Your task to perform on an android device: open app "Truecaller" (install if not already installed) Image 0: 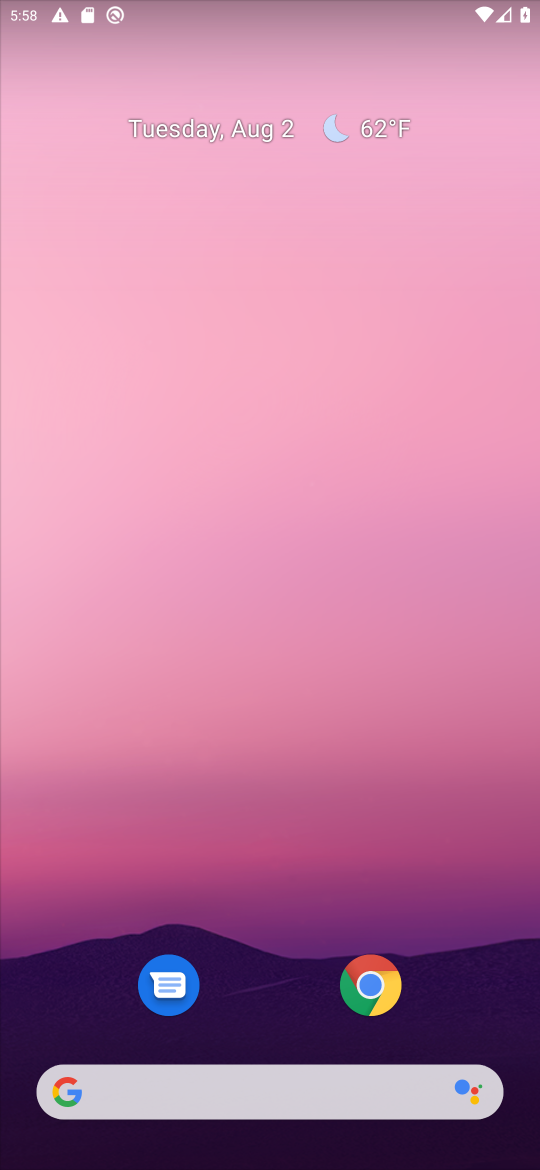
Step 0: press home button
Your task to perform on an android device: open app "Truecaller" (install if not already installed) Image 1: 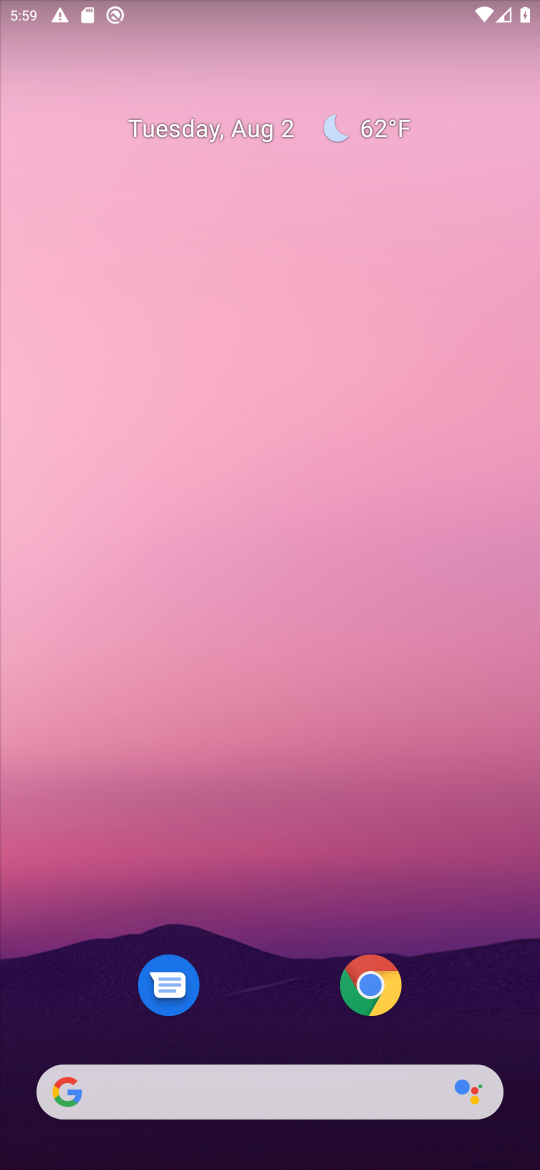
Step 1: drag from (264, 959) to (251, 391)
Your task to perform on an android device: open app "Truecaller" (install if not already installed) Image 2: 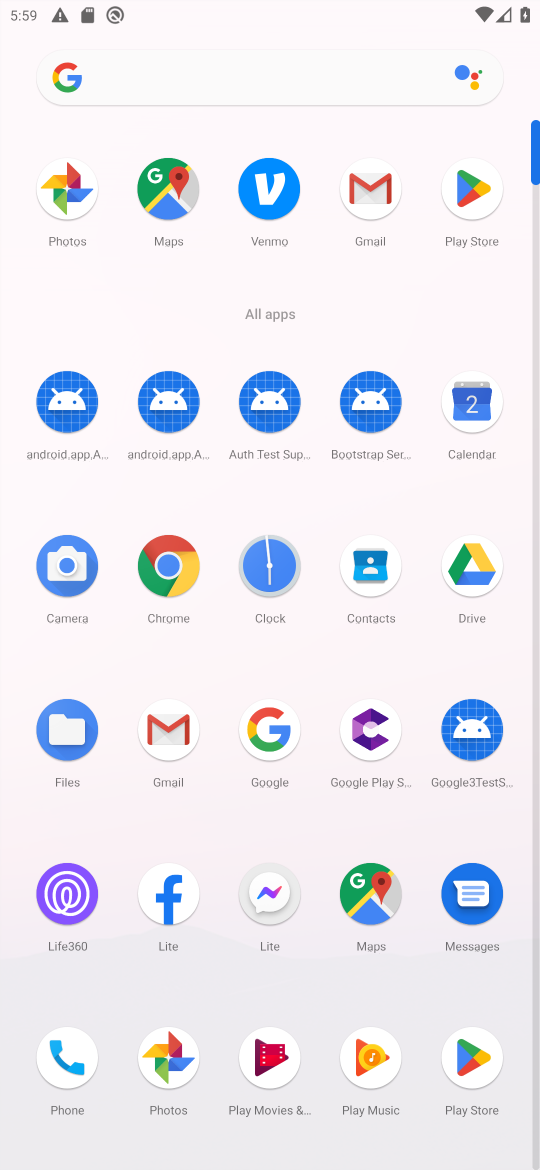
Step 2: click (462, 188)
Your task to perform on an android device: open app "Truecaller" (install if not already installed) Image 3: 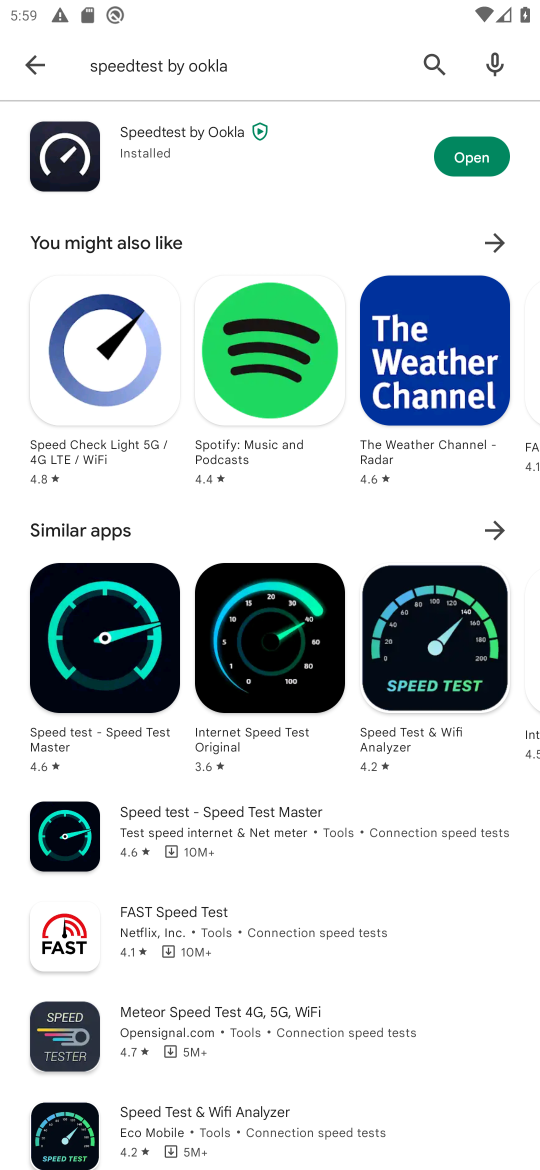
Step 3: click (425, 46)
Your task to perform on an android device: open app "Truecaller" (install if not already installed) Image 4: 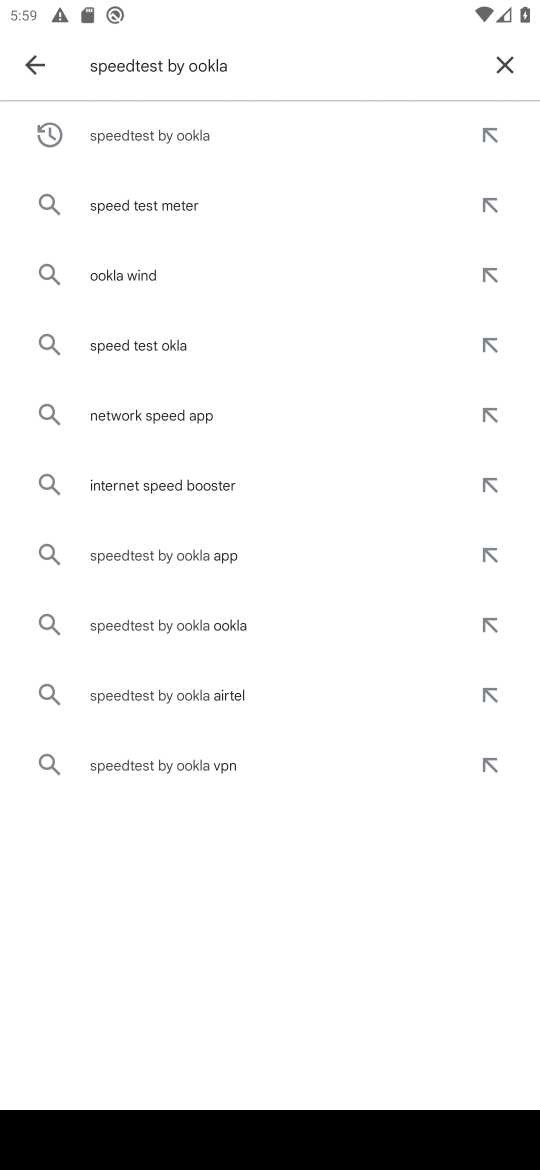
Step 4: click (499, 62)
Your task to perform on an android device: open app "Truecaller" (install if not already installed) Image 5: 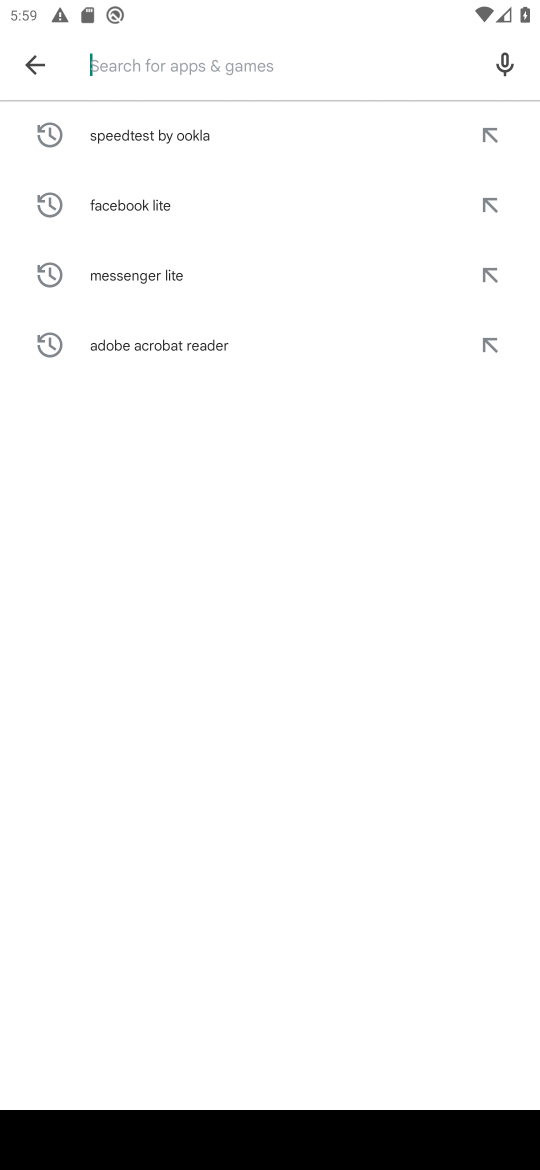
Step 5: type "Truecaller"
Your task to perform on an android device: open app "Truecaller" (install if not already installed) Image 6: 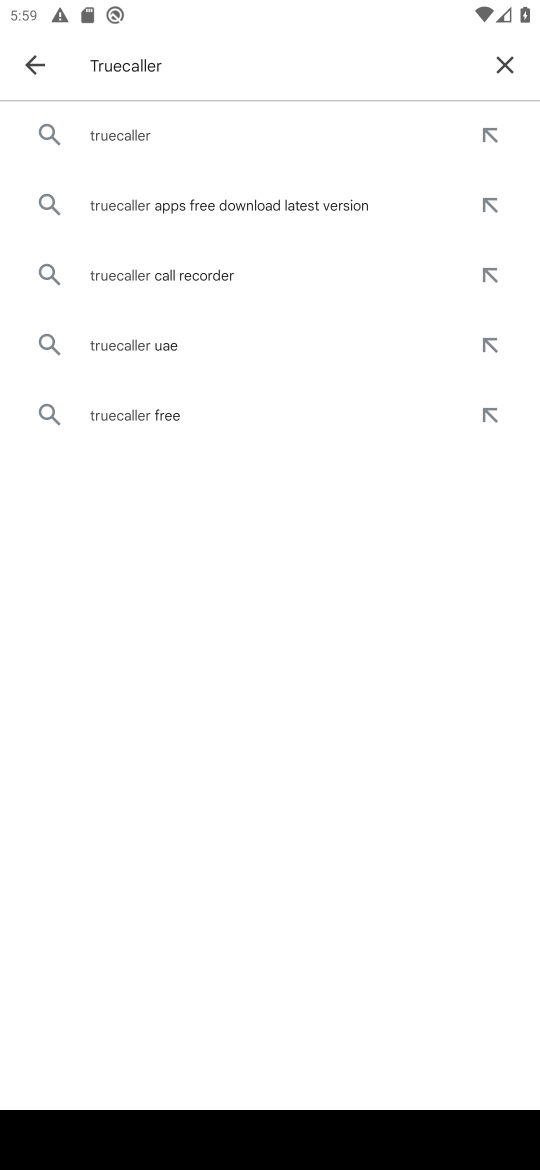
Step 6: click (182, 121)
Your task to perform on an android device: open app "Truecaller" (install if not already installed) Image 7: 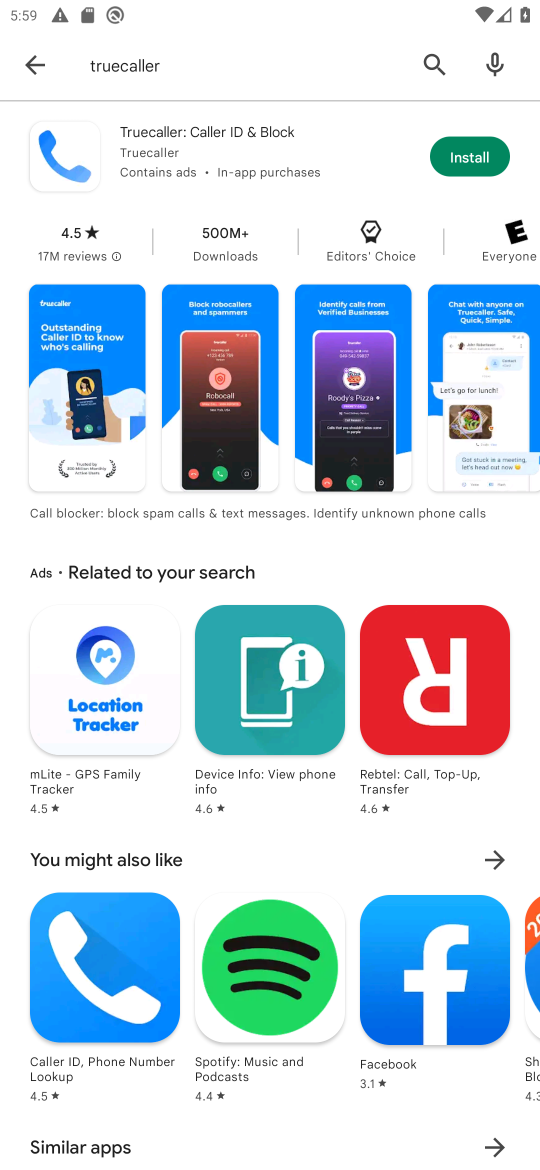
Step 7: click (455, 163)
Your task to perform on an android device: open app "Truecaller" (install if not already installed) Image 8: 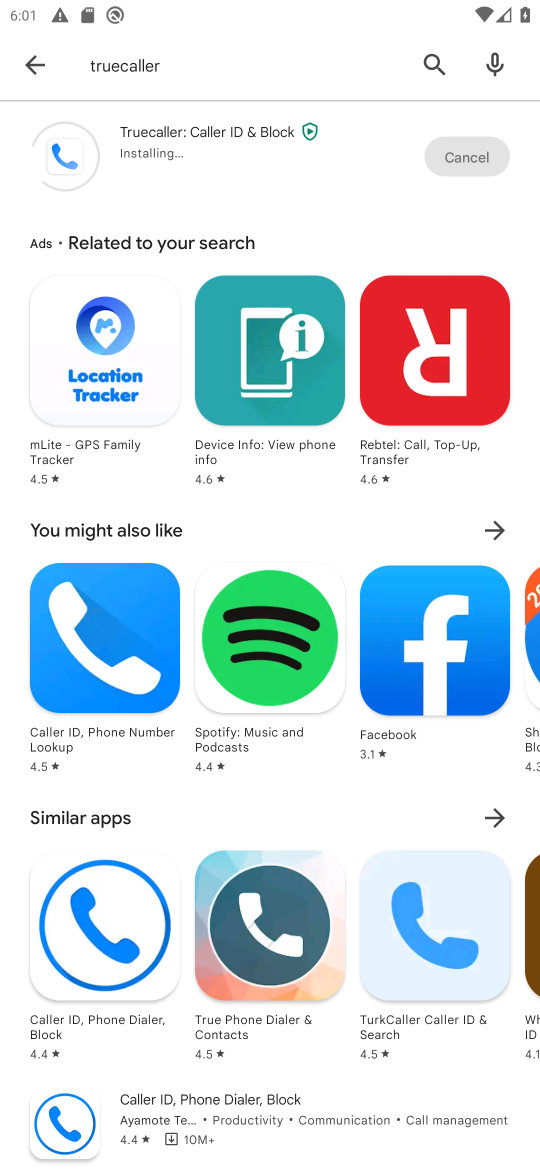
Step 8: task complete